Your task to perform on an android device: Open Yahoo.com Image 0: 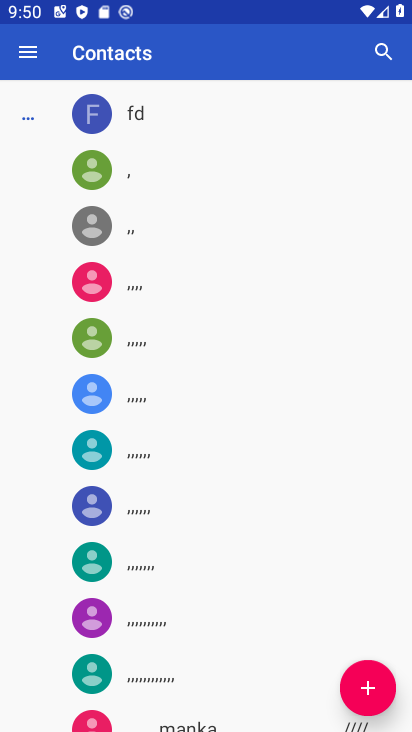
Step 0: press home button
Your task to perform on an android device: Open Yahoo.com Image 1: 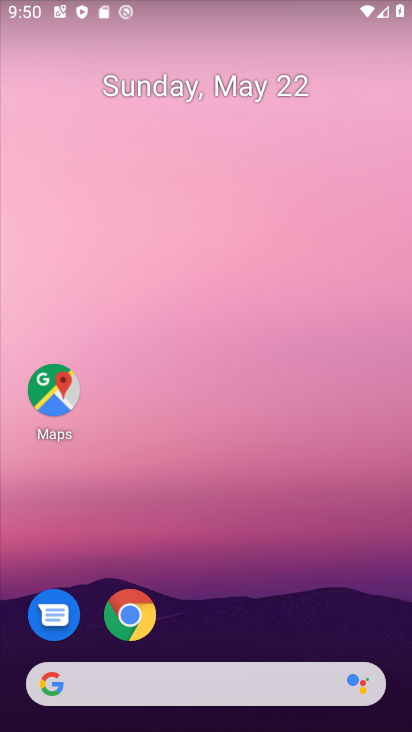
Step 1: click (138, 617)
Your task to perform on an android device: Open Yahoo.com Image 2: 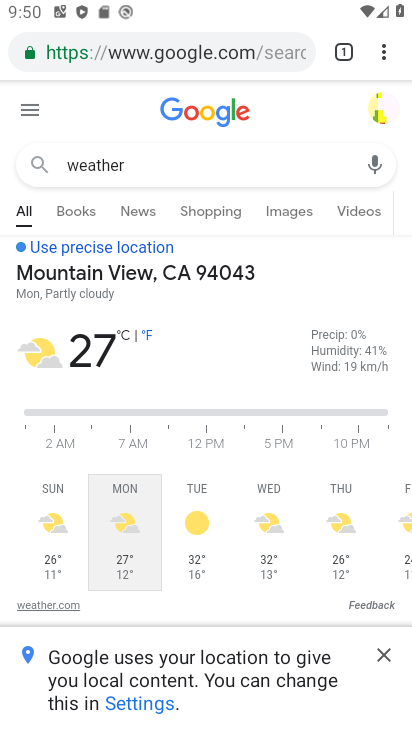
Step 2: click (250, 41)
Your task to perform on an android device: Open Yahoo.com Image 3: 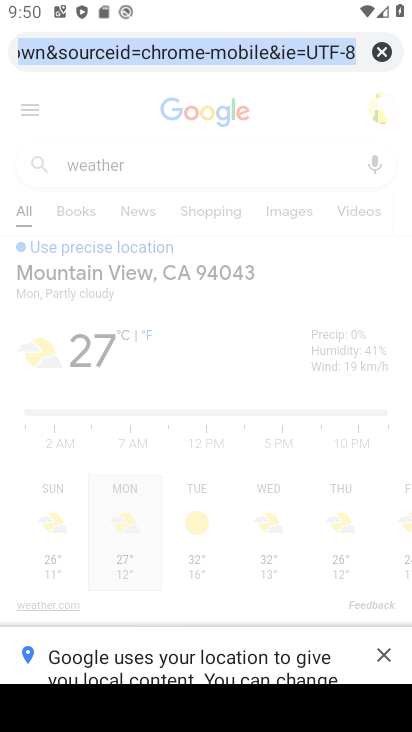
Step 3: type "yahoo.com"
Your task to perform on an android device: Open Yahoo.com Image 4: 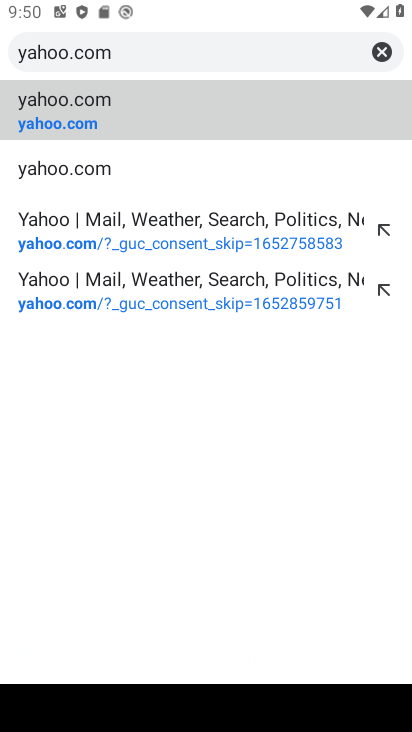
Step 4: click (46, 127)
Your task to perform on an android device: Open Yahoo.com Image 5: 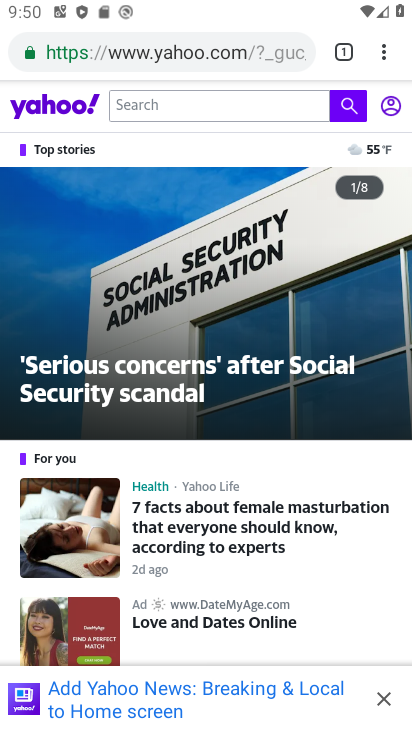
Step 5: task complete